Your task to perform on an android device: turn vacation reply on in the gmail app Image 0: 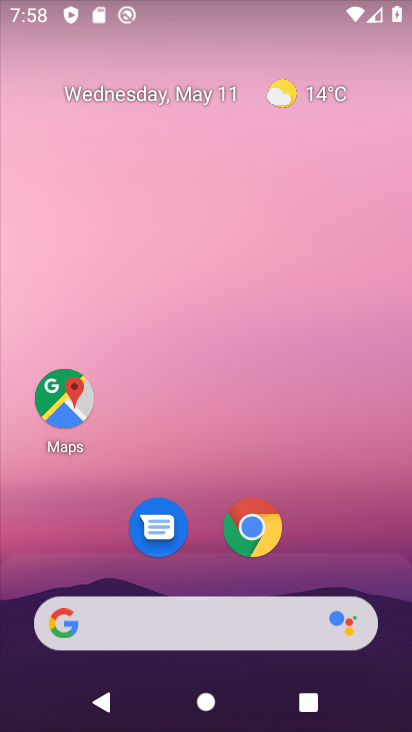
Step 0: drag from (288, 573) to (293, 97)
Your task to perform on an android device: turn vacation reply on in the gmail app Image 1: 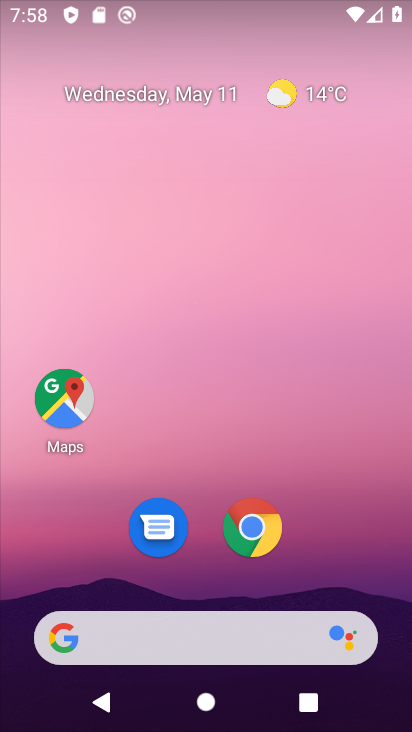
Step 1: drag from (312, 580) to (283, 211)
Your task to perform on an android device: turn vacation reply on in the gmail app Image 2: 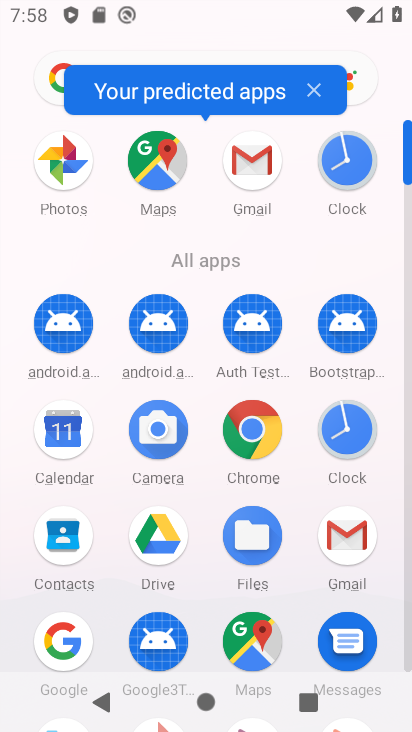
Step 2: click (357, 531)
Your task to perform on an android device: turn vacation reply on in the gmail app Image 3: 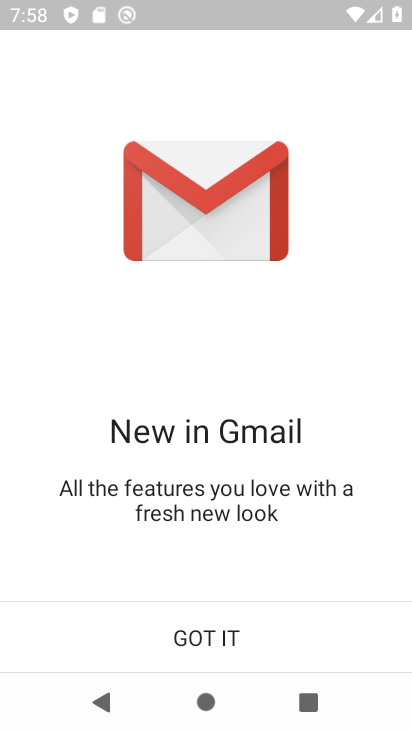
Step 3: click (231, 650)
Your task to perform on an android device: turn vacation reply on in the gmail app Image 4: 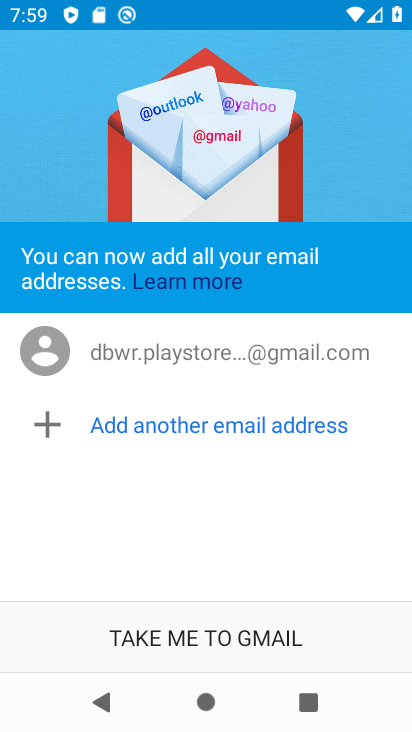
Step 4: click (218, 643)
Your task to perform on an android device: turn vacation reply on in the gmail app Image 5: 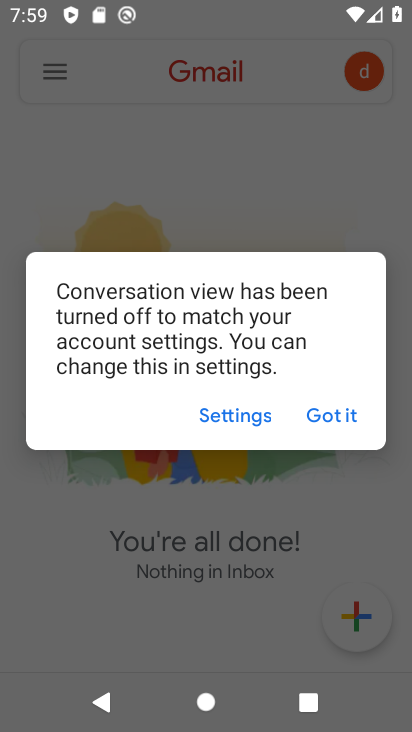
Step 5: click (335, 425)
Your task to perform on an android device: turn vacation reply on in the gmail app Image 6: 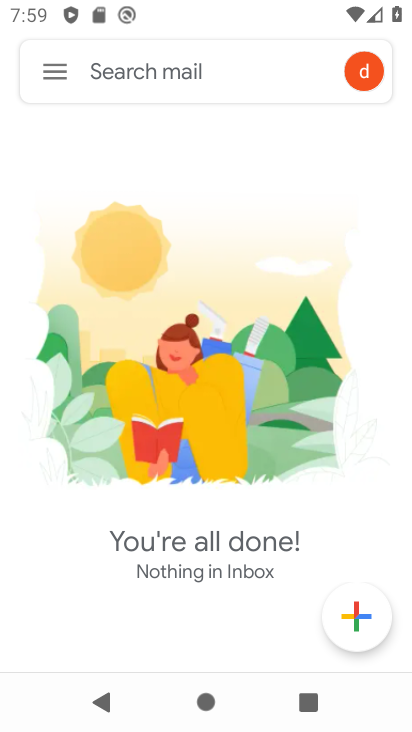
Step 6: click (60, 71)
Your task to perform on an android device: turn vacation reply on in the gmail app Image 7: 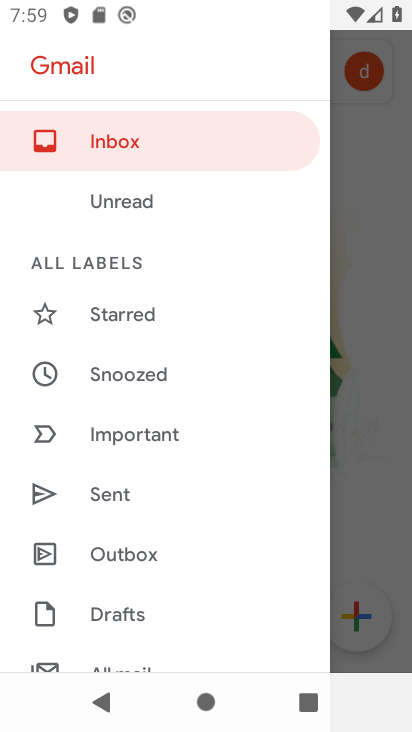
Step 7: drag from (240, 647) to (211, 273)
Your task to perform on an android device: turn vacation reply on in the gmail app Image 8: 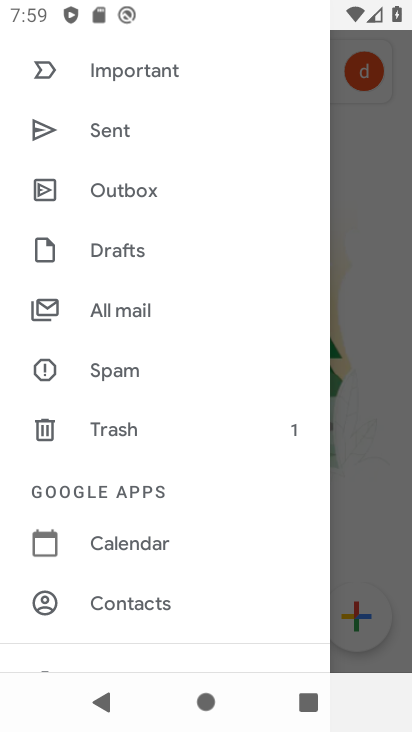
Step 8: drag from (206, 556) to (212, 176)
Your task to perform on an android device: turn vacation reply on in the gmail app Image 9: 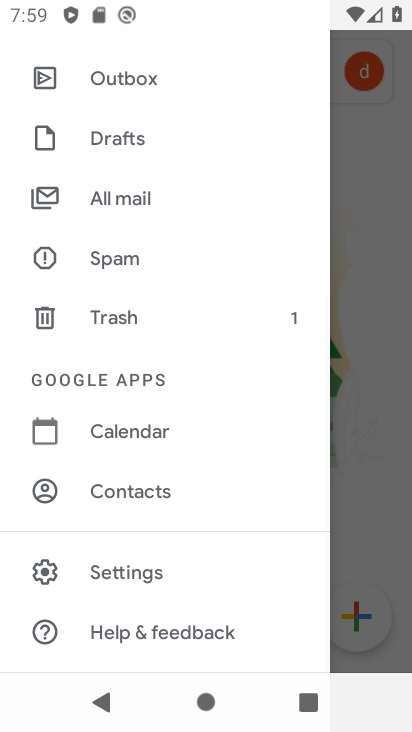
Step 9: click (128, 576)
Your task to perform on an android device: turn vacation reply on in the gmail app Image 10: 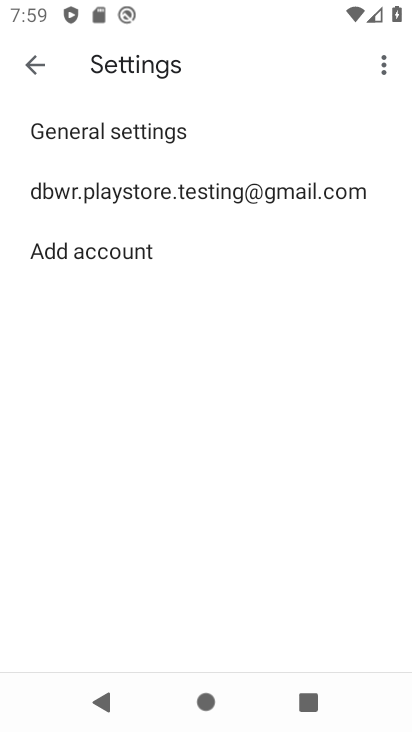
Step 10: click (176, 199)
Your task to perform on an android device: turn vacation reply on in the gmail app Image 11: 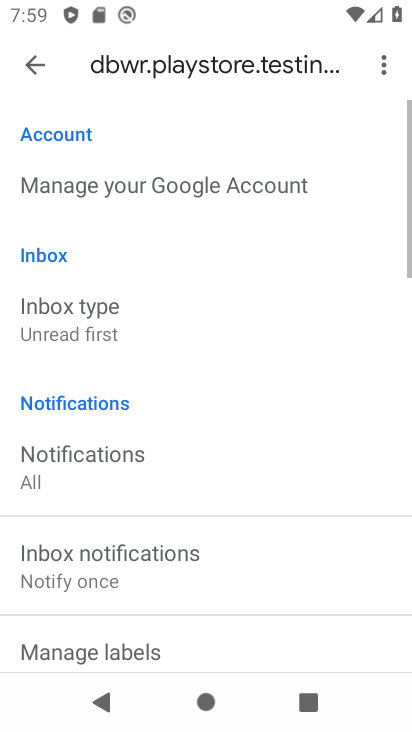
Step 11: drag from (249, 560) to (245, 129)
Your task to perform on an android device: turn vacation reply on in the gmail app Image 12: 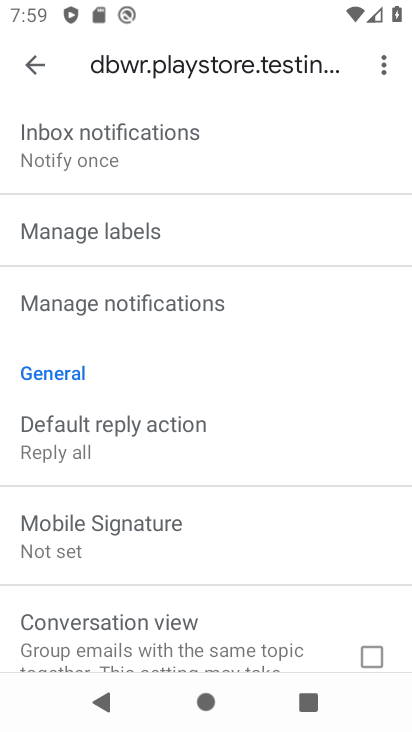
Step 12: drag from (265, 626) to (269, 124)
Your task to perform on an android device: turn vacation reply on in the gmail app Image 13: 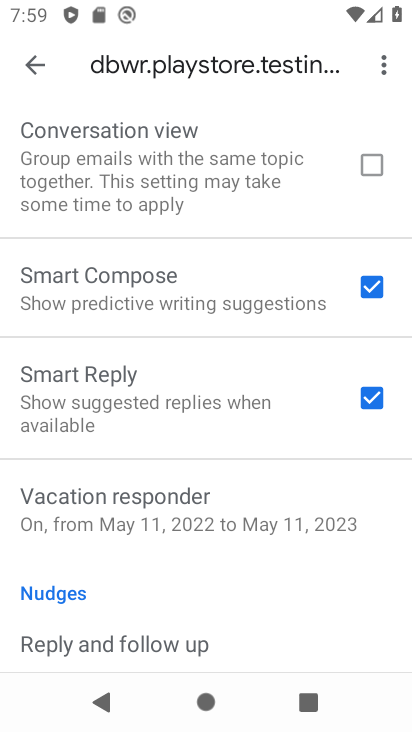
Step 13: click (284, 503)
Your task to perform on an android device: turn vacation reply on in the gmail app Image 14: 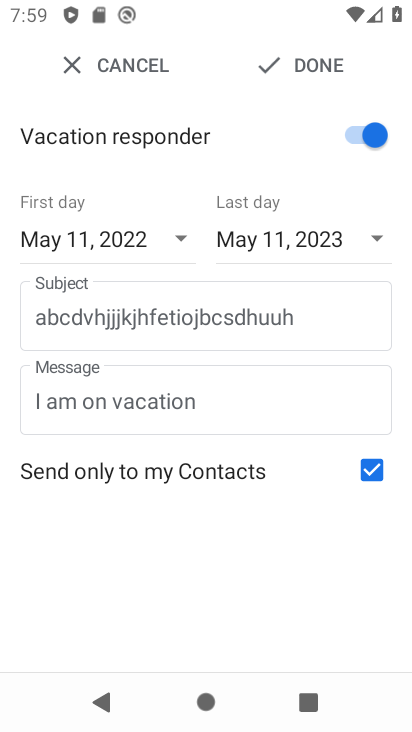
Step 14: click (307, 64)
Your task to perform on an android device: turn vacation reply on in the gmail app Image 15: 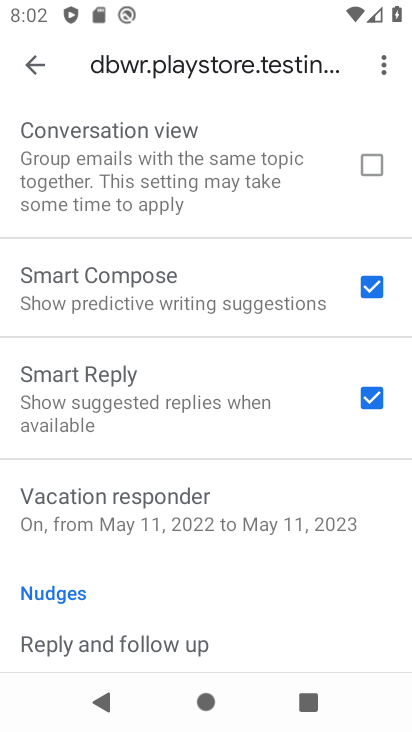
Step 15: task complete